Your task to perform on an android device: Go to internet settings Image 0: 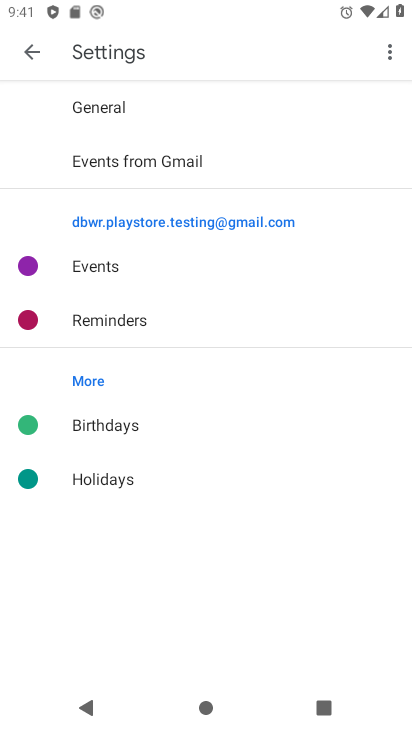
Step 0: press home button
Your task to perform on an android device: Go to internet settings Image 1: 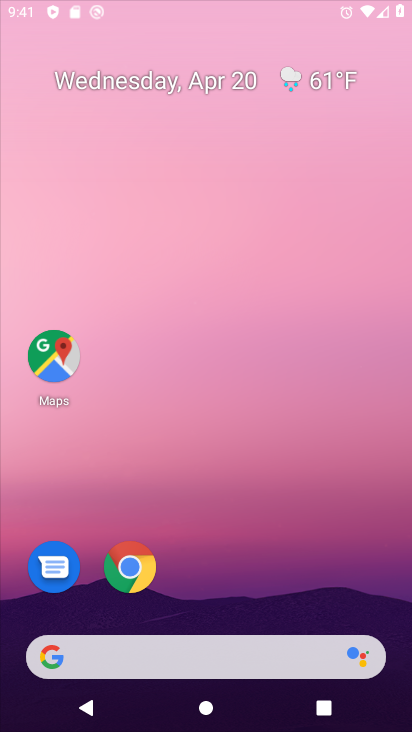
Step 1: drag from (188, 72) to (244, 167)
Your task to perform on an android device: Go to internet settings Image 2: 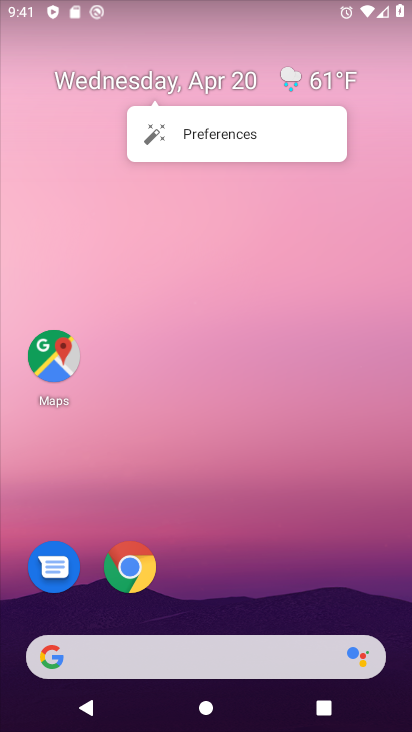
Step 2: click (254, 437)
Your task to perform on an android device: Go to internet settings Image 3: 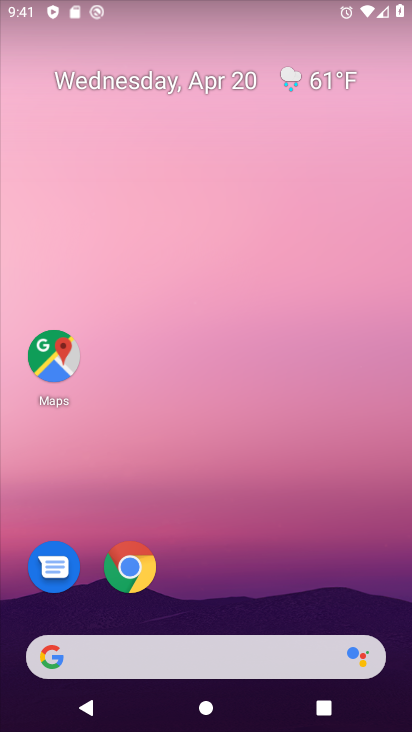
Step 3: drag from (233, 590) to (243, 129)
Your task to perform on an android device: Go to internet settings Image 4: 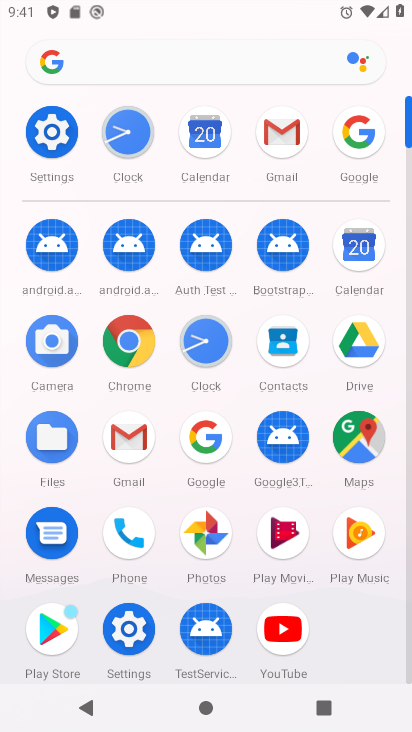
Step 4: click (33, 133)
Your task to perform on an android device: Go to internet settings Image 5: 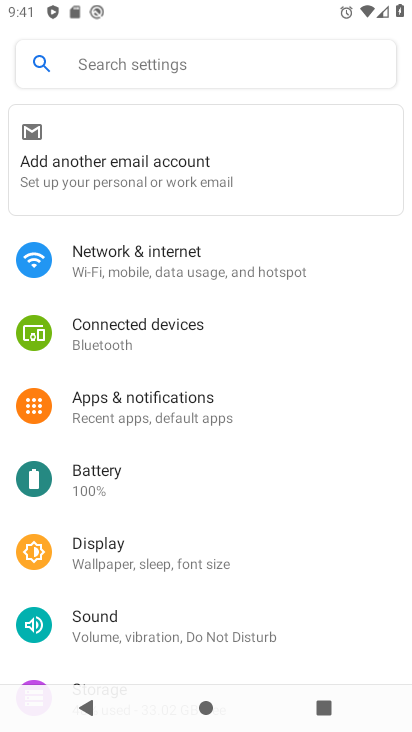
Step 5: click (205, 270)
Your task to perform on an android device: Go to internet settings Image 6: 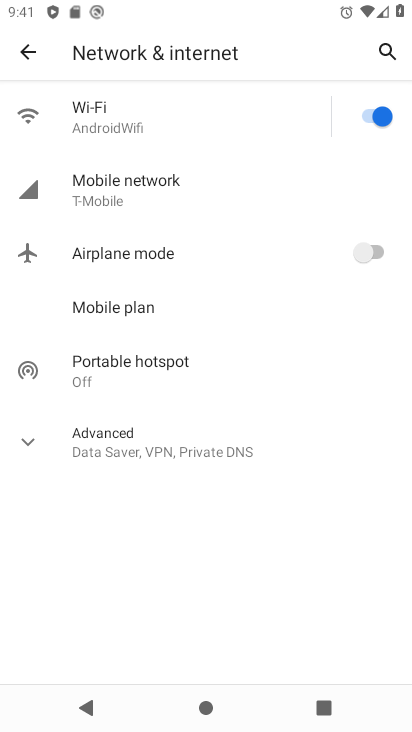
Step 6: task complete